Your task to perform on an android device: turn on translation in the chrome app Image 0: 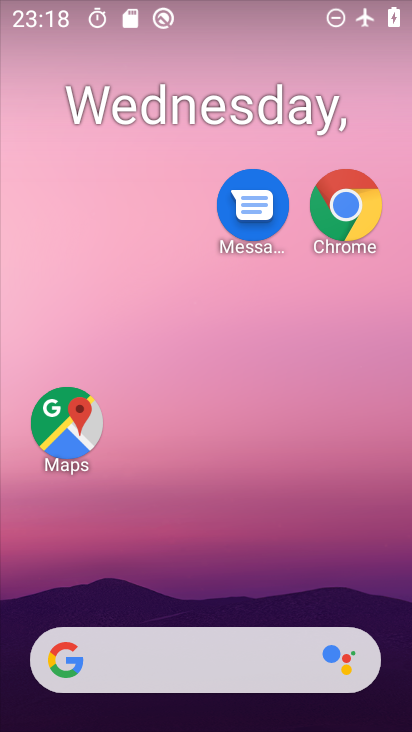
Step 0: click (204, 493)
Your task to perform on an android device: turn on translation in the chrome app Image 1: 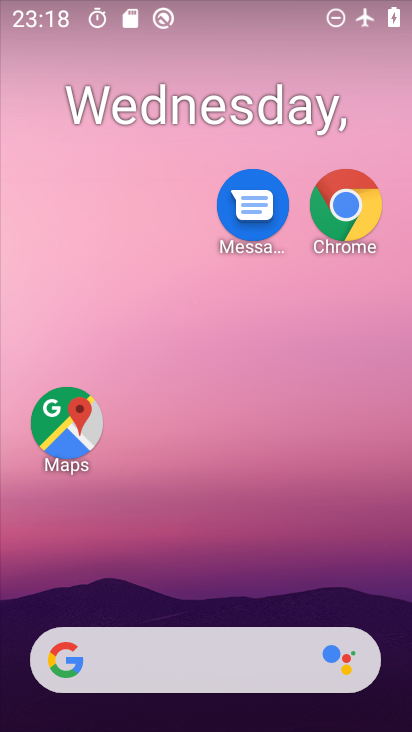
Step 1: click (353, 183)
Your task to perform on an android device: turn on translation in the chrome app Image 2: 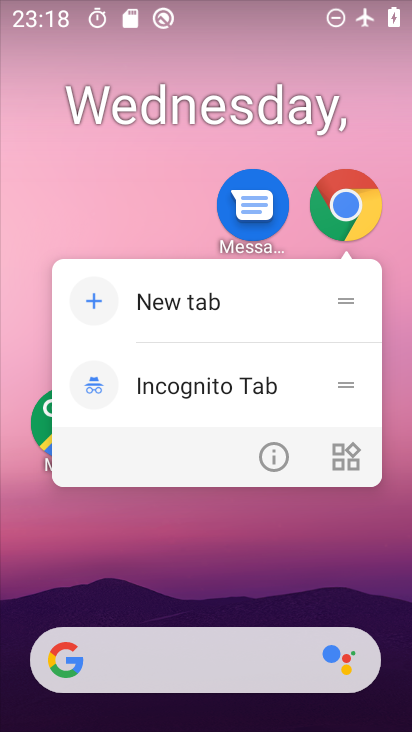
Step 2: click (295, 471)
Your task to perform on an android device: turn on translation in the chrome app Image 3: 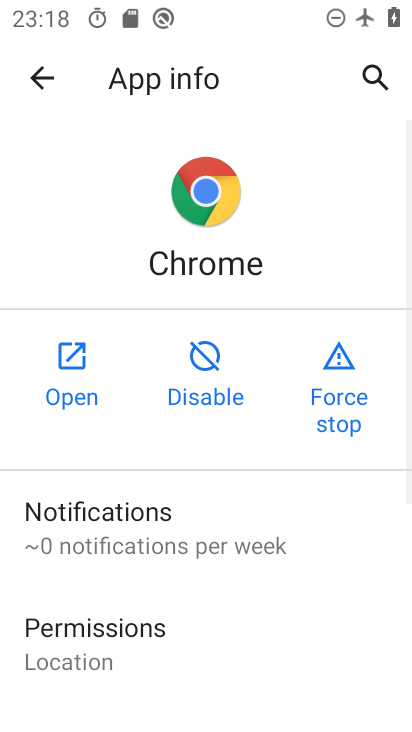
Step 3: click (70, 377)
Your task to perform on an android device: turn on translation in the chrome app Image 4: 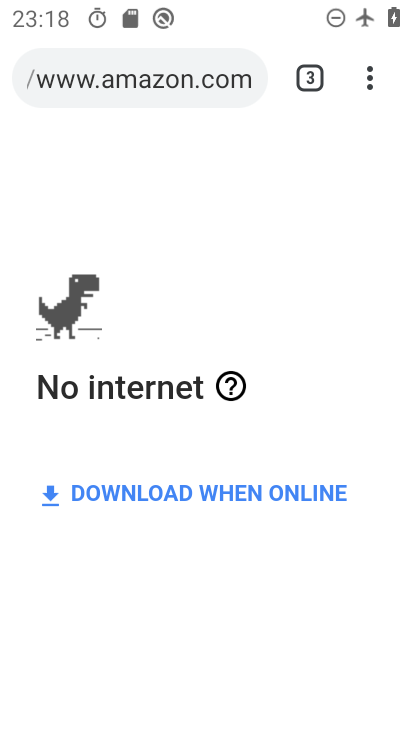
Step 4: drag from (372, 96) to (153, 608)
Your task to perform on an android device: turn on translation in the chrome app Image 5: 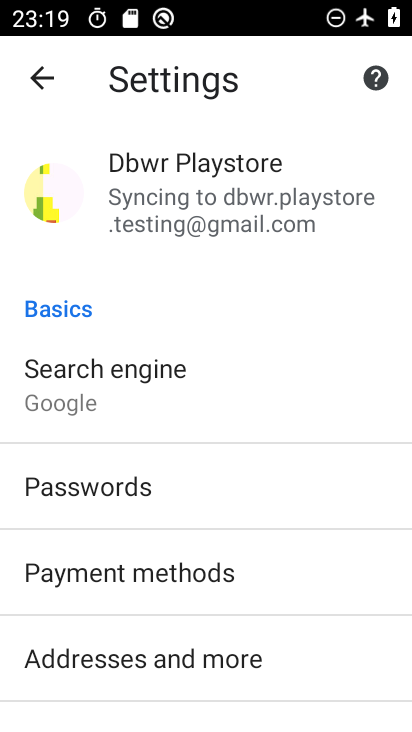
Step 5: drag from (190, 611) to (302, 271)
Your task to perform on an android device: turn on translation in the chrome app Image 6: 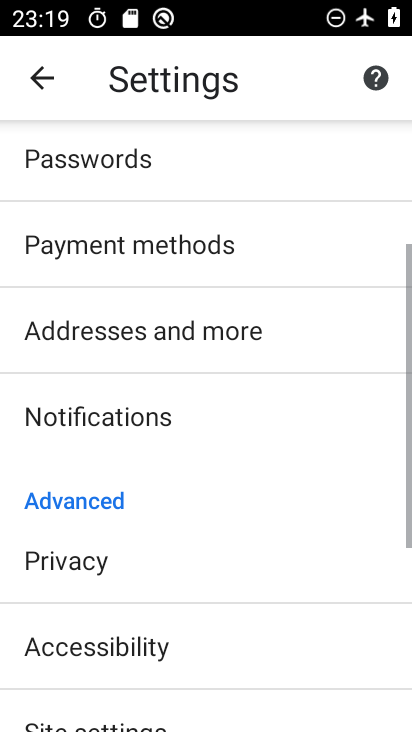
Step 6: drag from (229, 203) to (233, 46)
Your task to perform on an android device: turn on translation in the chrome app Image 7: 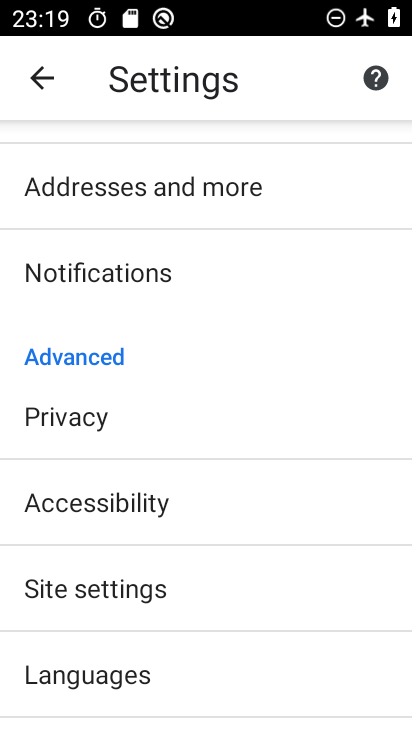
Step 7: click (240, 123)
Your task to perform on an android device: turn on translation in the chrome app Image 8: 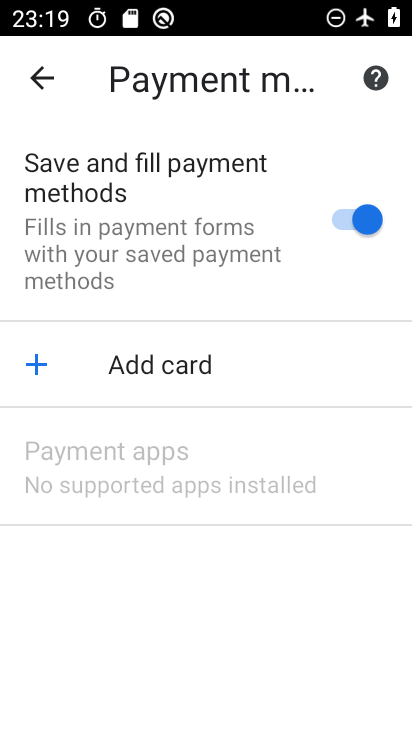
Step 8: click (45, 73)
Your task to perform on an android device: turn on translation in the chrome app Image 9: 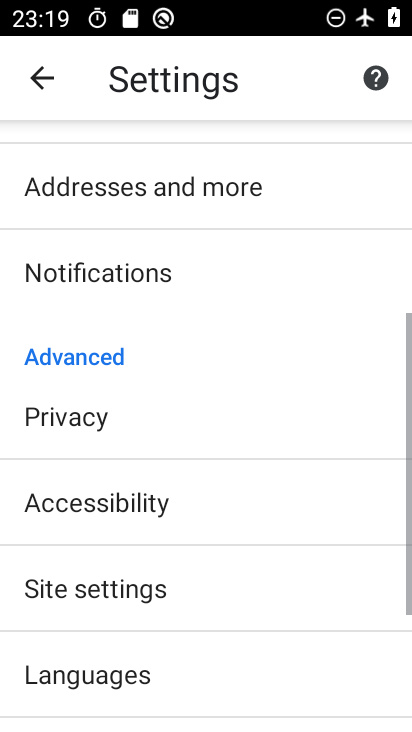
Step 9: drag from (187, 551) to (313, 123)
Your task to perform on an android device: turn on translation in the chrome app Image 10: 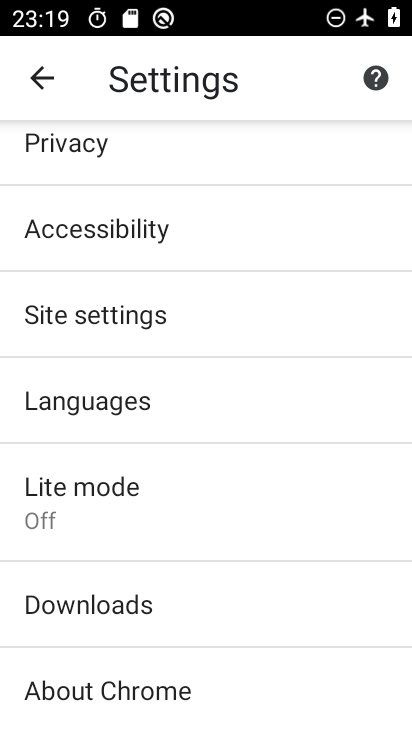
Step 10: click (146, 392)
Your task to perform on an android device: turn on translation in the chrome app Image 11: 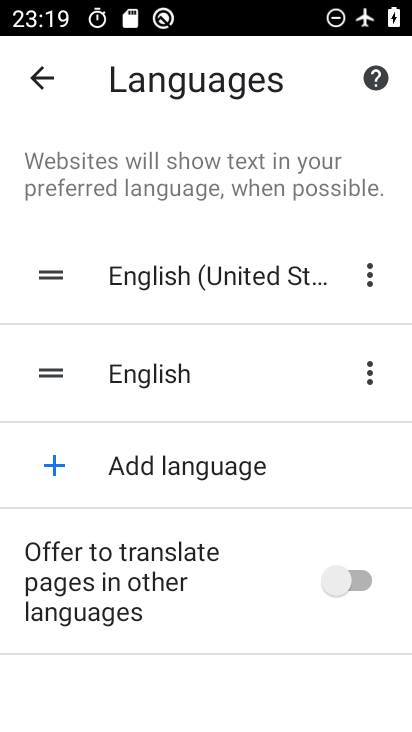
Step 11: click (251, 575)
Your task to perform on an android device: turn on translation in the chrome app Image 12: 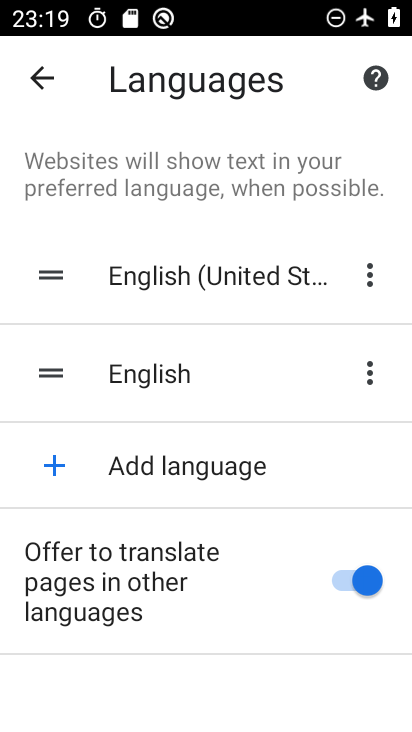
Step 12: task complete